Your task to perform on an android device: What's the weather today? Image 0: 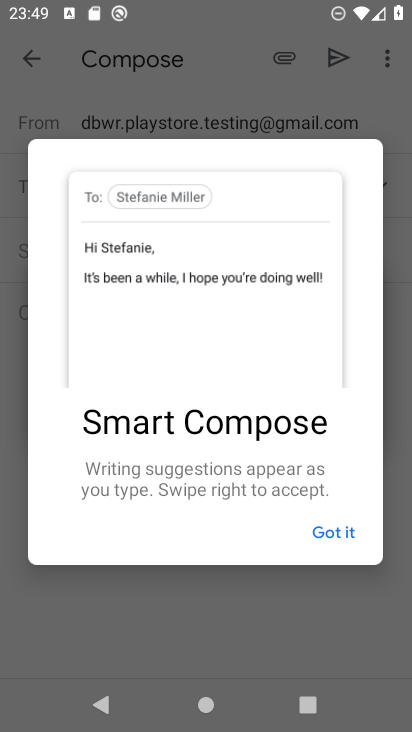
Step 0: press home button
Your task to perform on an android device: What's the weather today? Image 1: 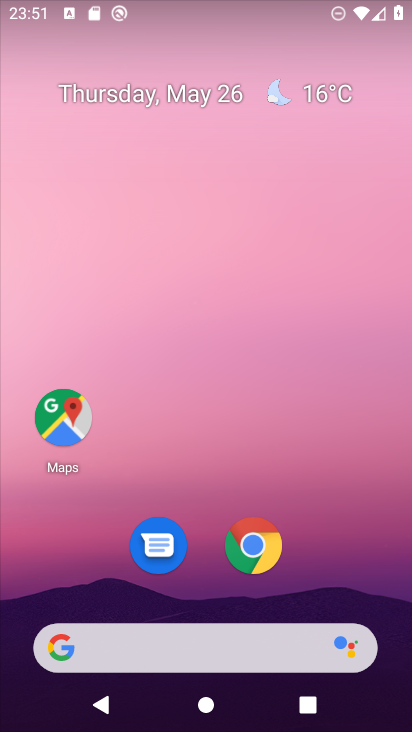
Step 1: click (68, 656)
Your task to perform on an android device: What's the weather today? Image 2: 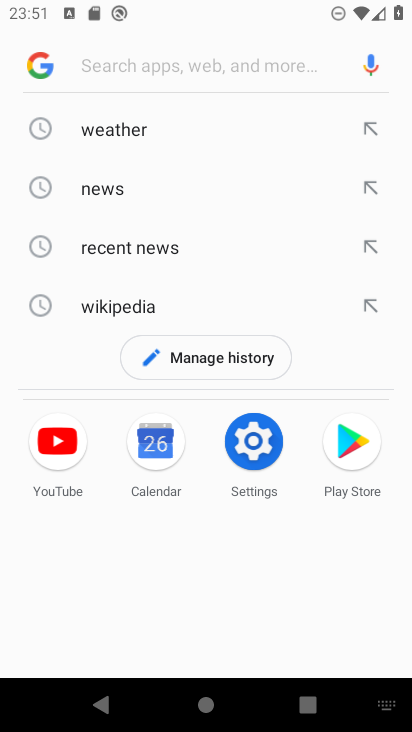
Step 2: type "weather today?"
Your task to perform on an android device: What's the weather today? Image 3: 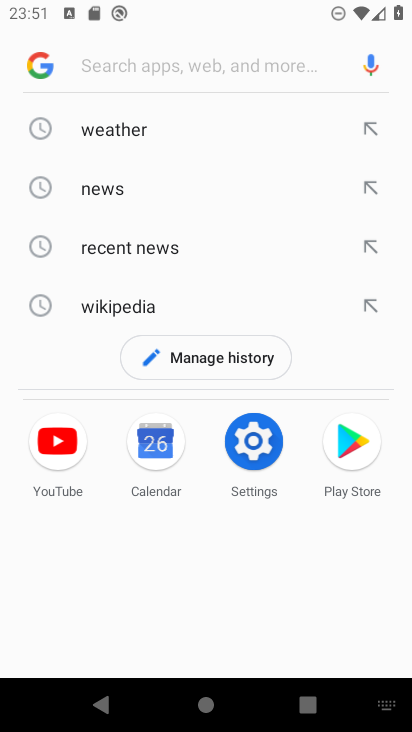
Step 3: click (177, 63)
Your task to perform on an android device: What's the weather today? Image 4: 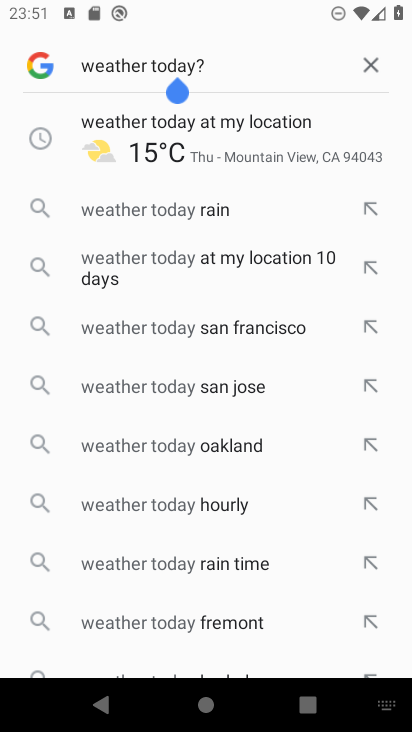
Step 4: click (162, 118)
Your task to perform on an android device: What's the weather today? Image 5: 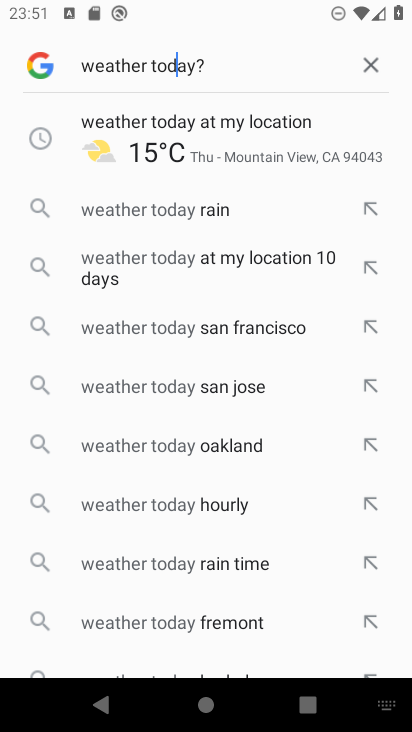
Step 5: click (236, 74)
Your task to perform on an android device: What's the weather today? Image 6: 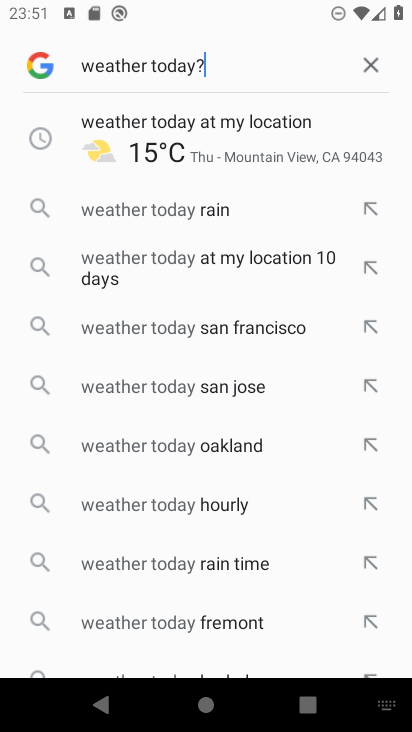
Step 6: click (366, 61)
Your task to perform on an android device: What's the weather today? Image 7: 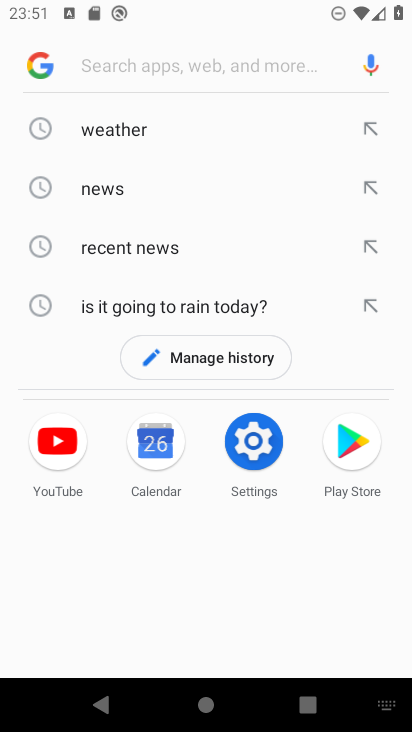
Step 7: type "What's the weather today?"
Your task to perform on an android device: What's the weather today? Image 8: 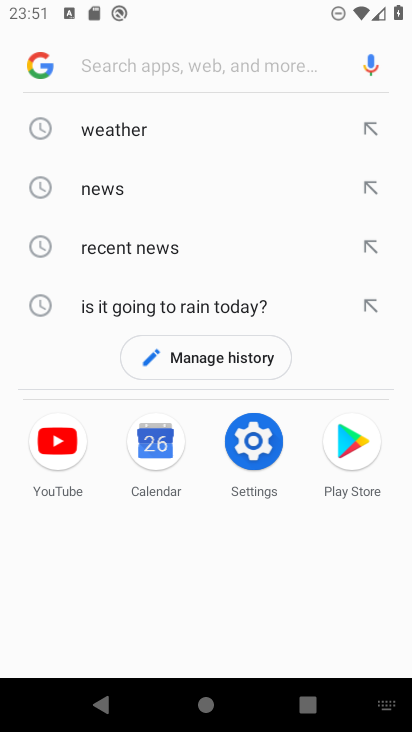
Step 8: click (151, 68)
Your task to perform on an android device: What's the weather today? Image 9: 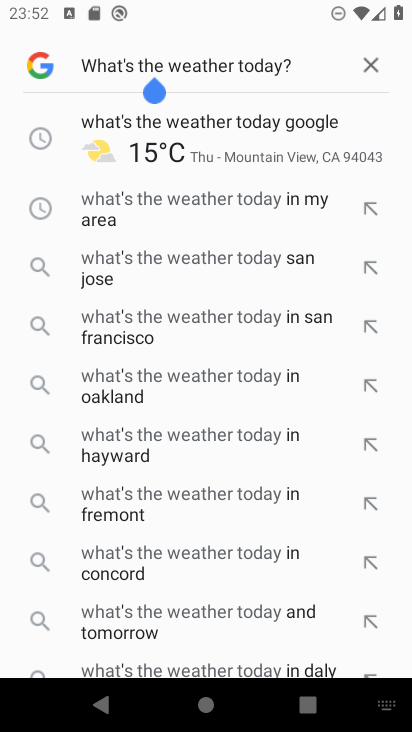
Step 9: click (214, 120)
Your task to perform on an android device: What's the weather today? Image 10: 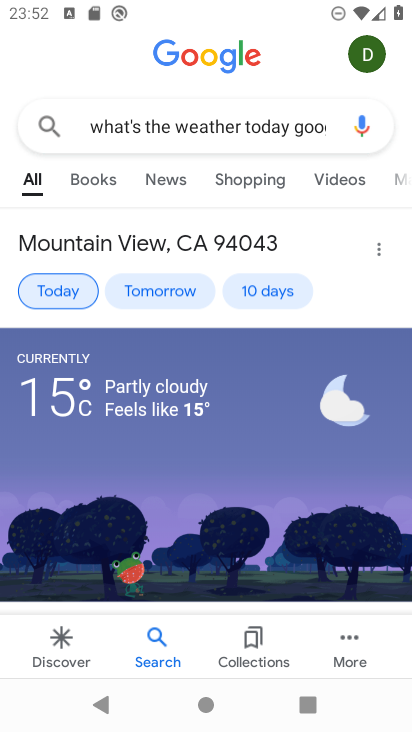
Step 10: task complete